Your task to perform on an android device: Clear all items from cart on costco. Add razer blade to the cart on costco, then select checkout. Image 0: 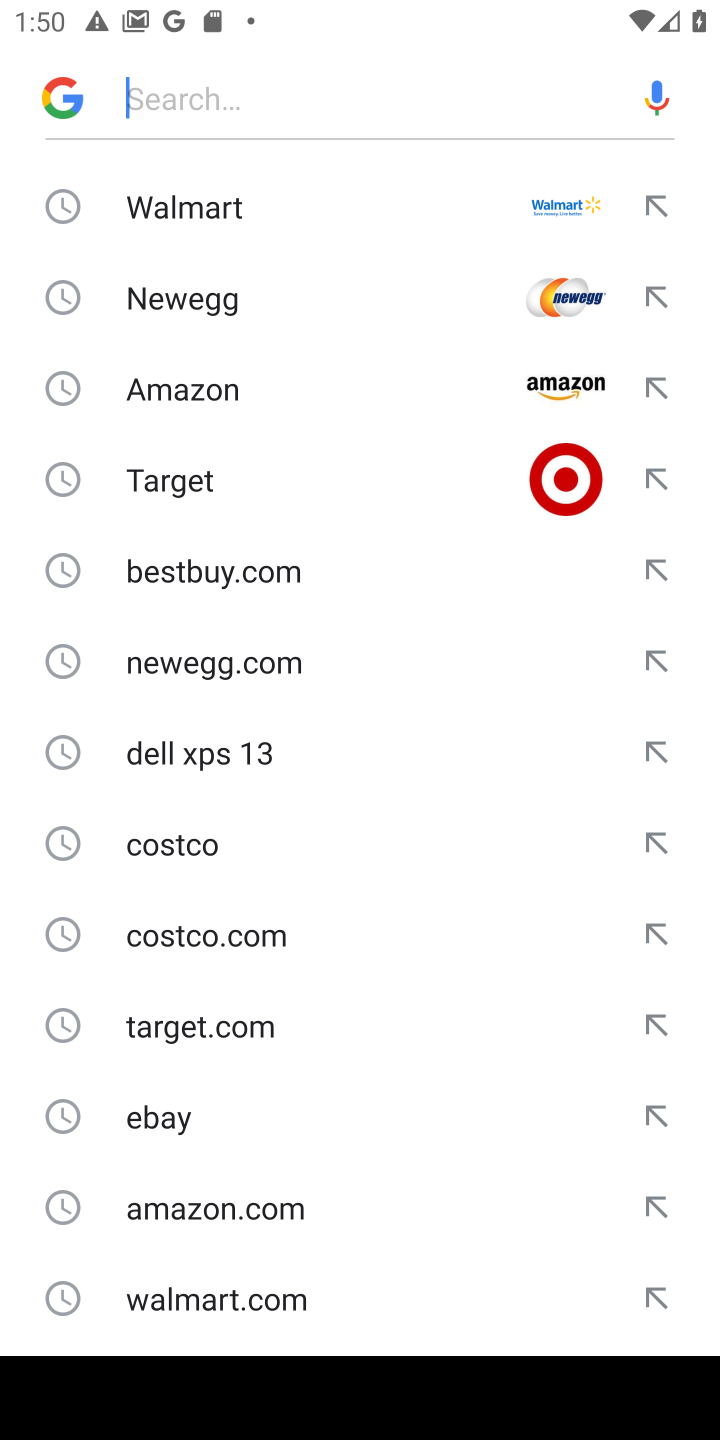
Step 0: click (341, 932)
Your task to perform on an android device: Clear all items from cart on costco. Add razer blade to the cart on costco, then select checkout. Image 1: 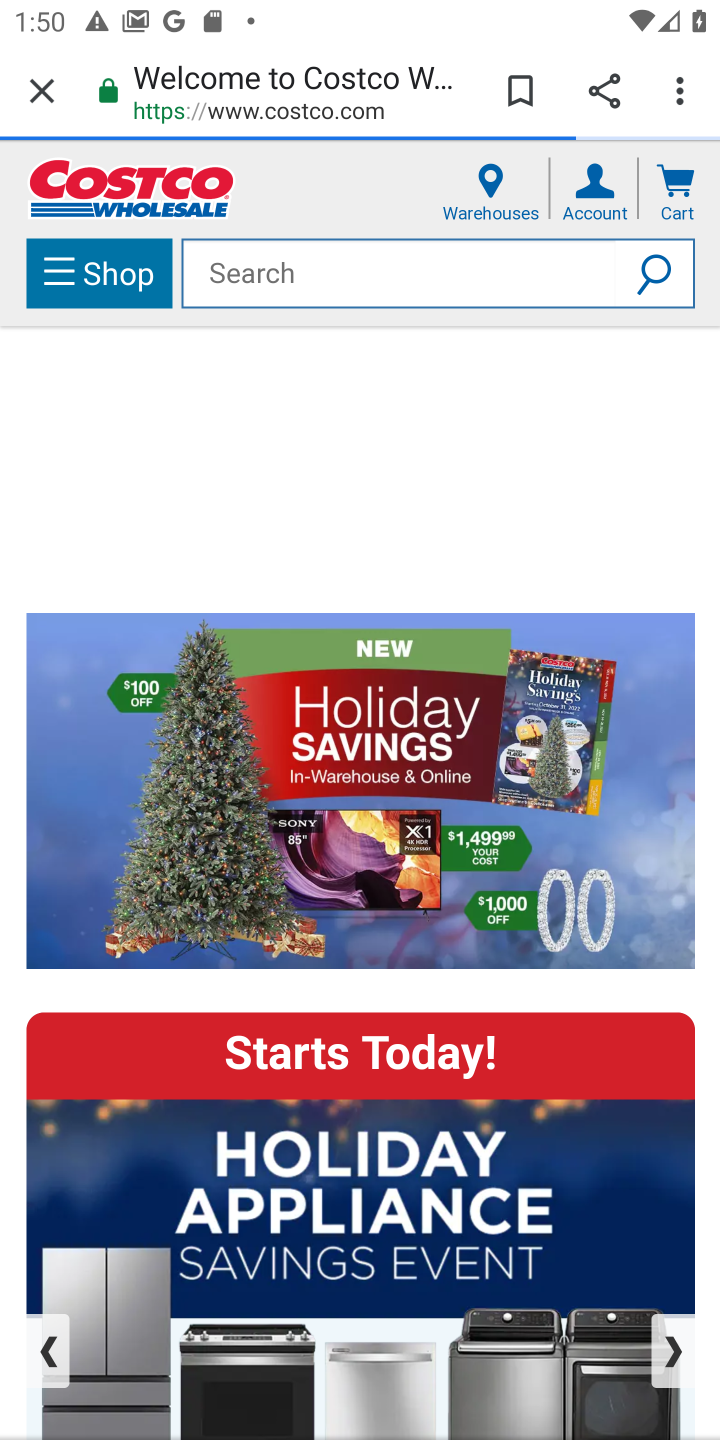
Step 1: click (324, 251)
Your task to perform on an android device: Clear all items from cart on costco. Add razer blade to the cart on costco, then select checkout. Image 2: 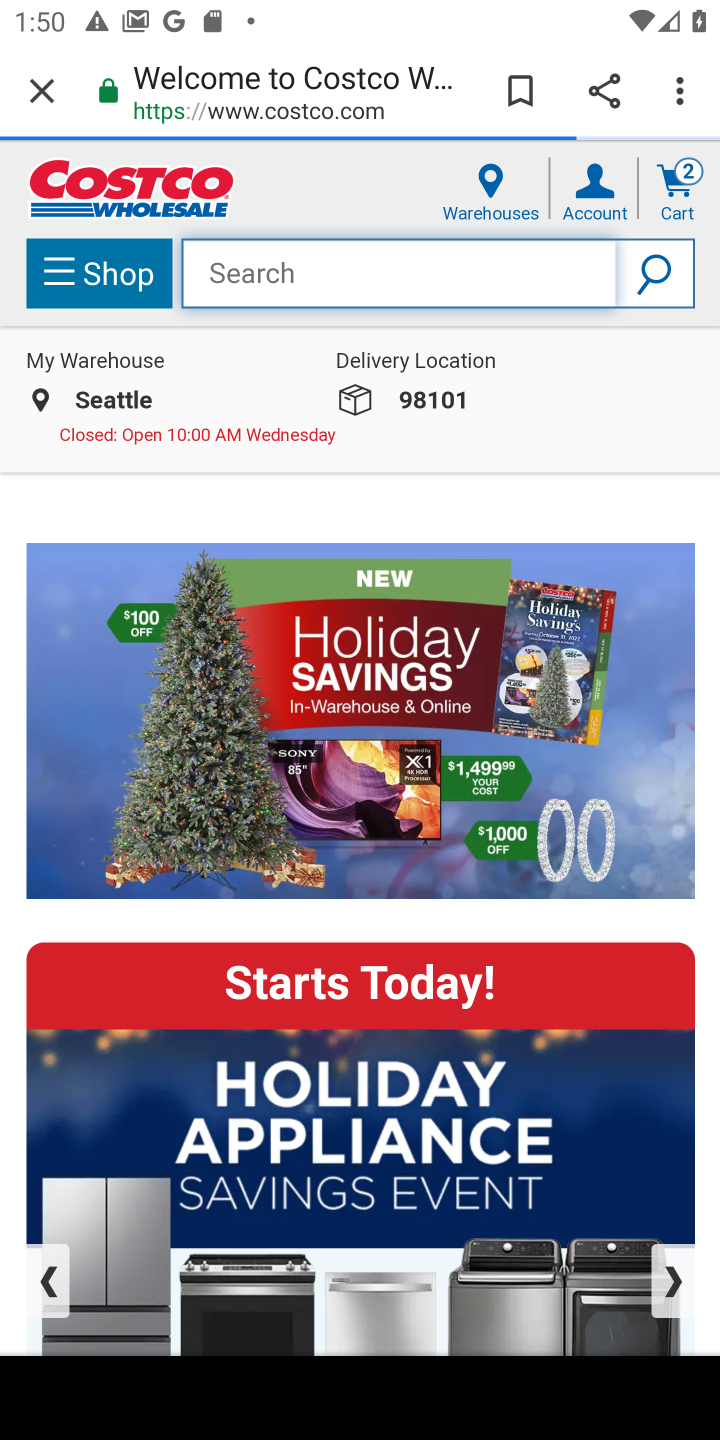
Step 2: click (324, 251)
Your task to perform on an android device: Clear all items from cart on costco. Add razer blade to the cart on costco, then select checkout. Image 3: 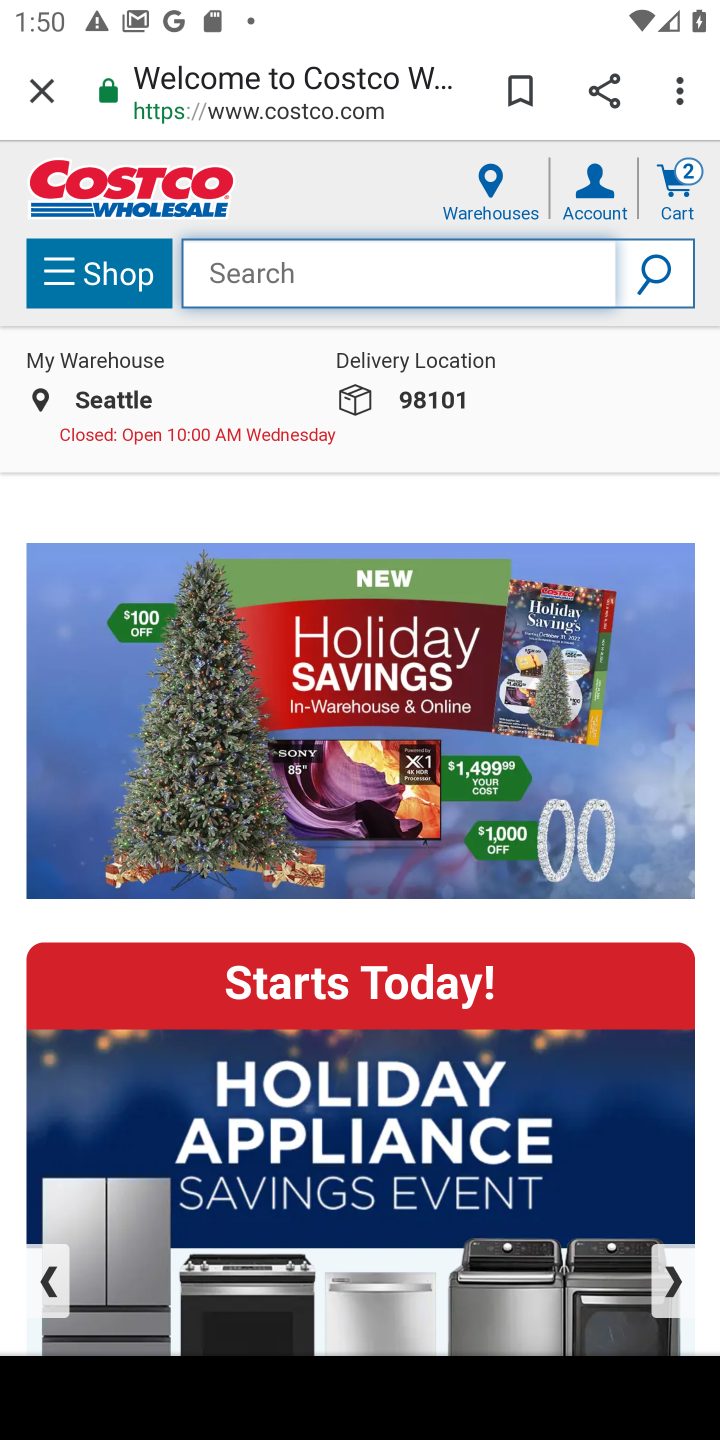
Step 3: type "razer blade"
Your task to perform on an android device: Clear all items from cart on costco. Add razer blade to the cart on costco, then select checkout. Image 4: 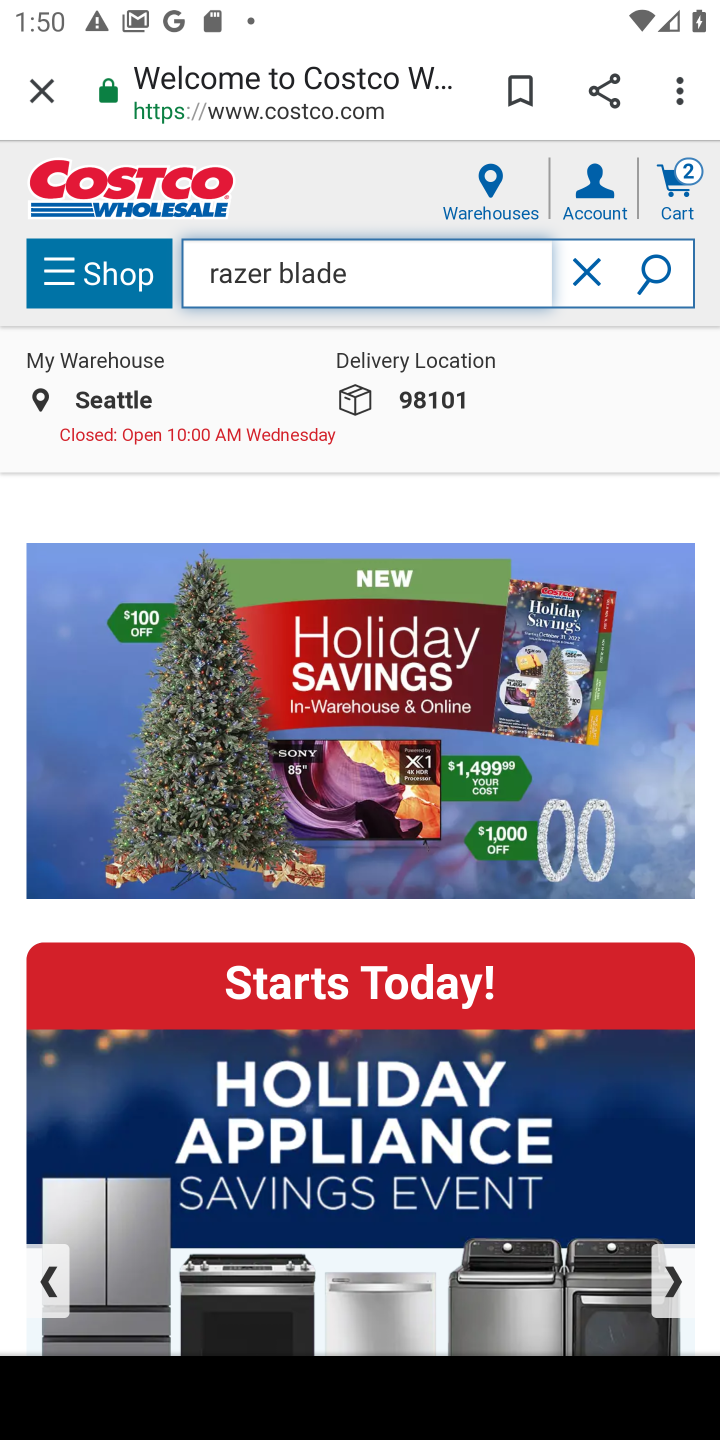
Step 4: click (673, 273)
Your task to perform on an android device: Clear all items from cart on costco. Add razer blade to the cart on costco, then select checkout. Image 5: 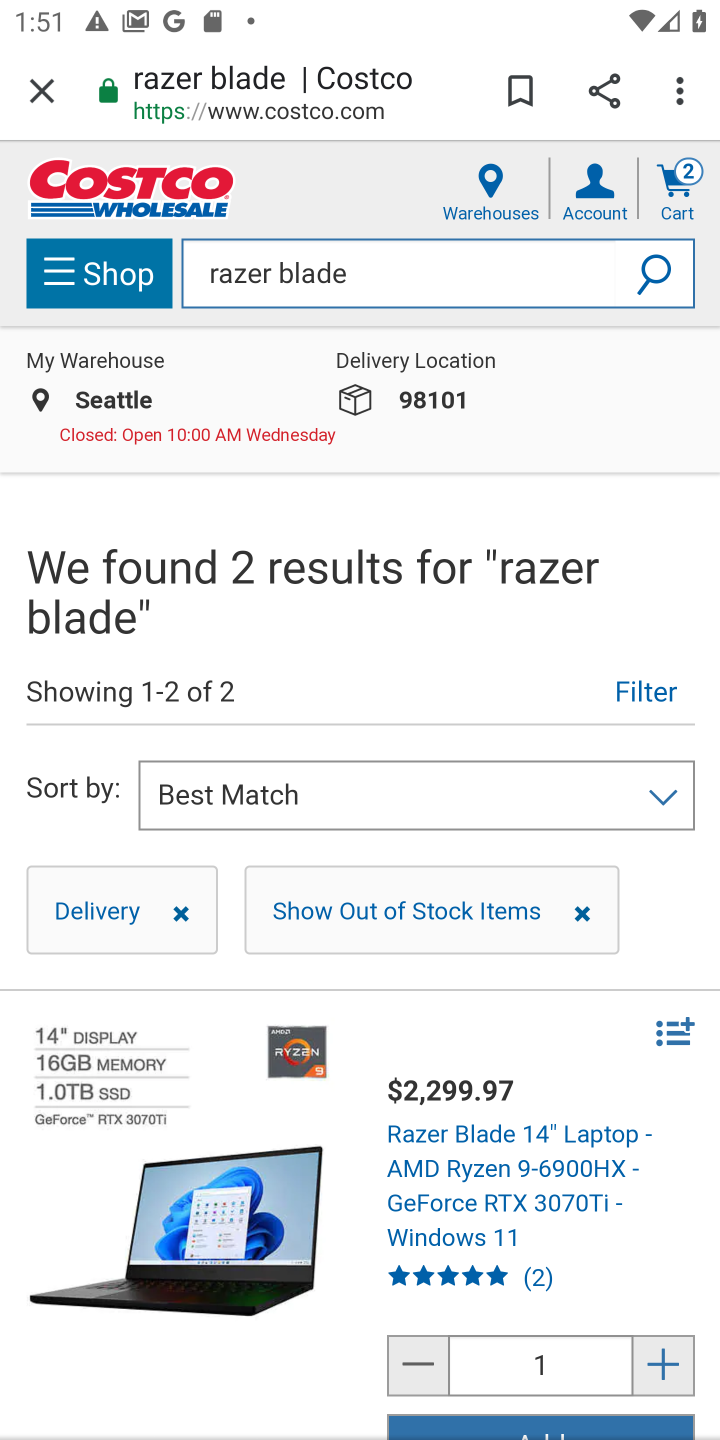
Step 5: click (502, 1419)
Your task to perform on an android device: Clear all items from cart on costco. Add razer blade to the cart on costco, then select checkout. Image 6: 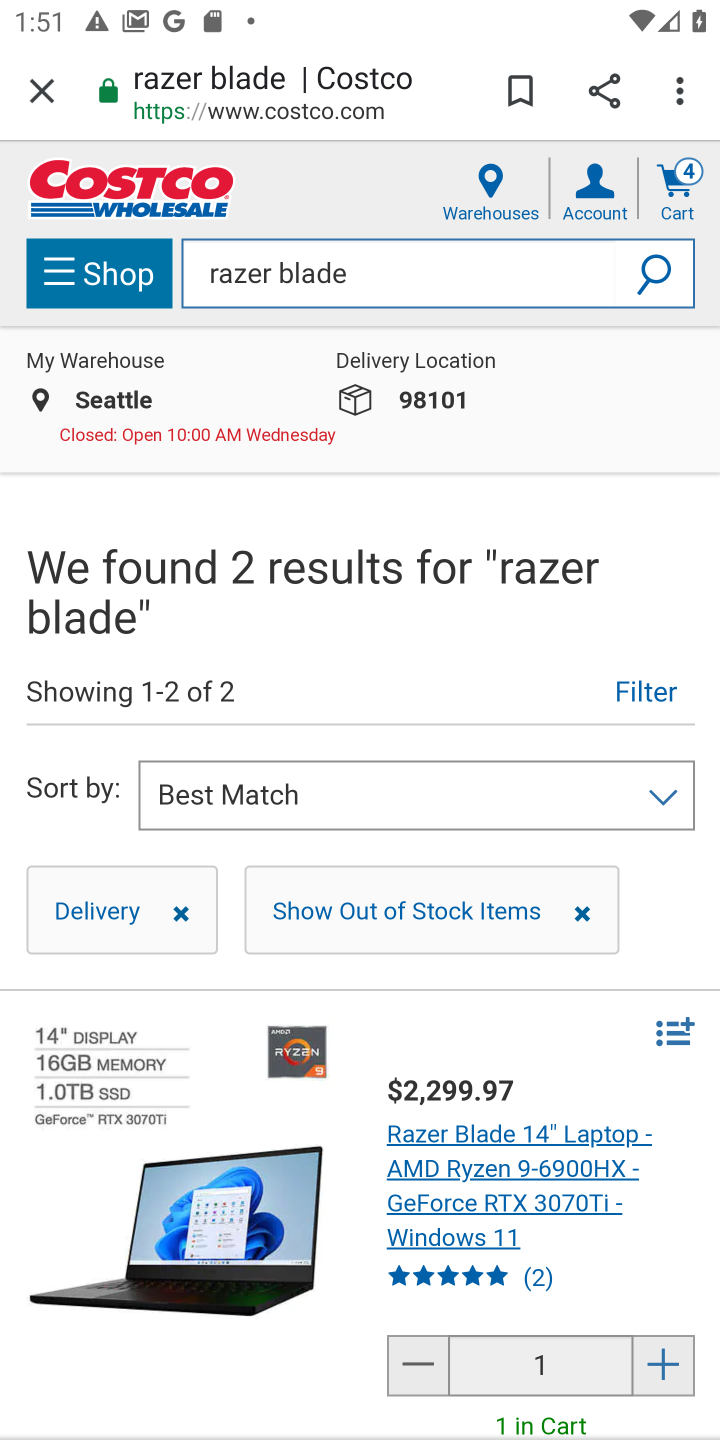
Step 6: task complete